Your task to perform on an android device: Open Youtube and go to the subscriptions tab Image 0: 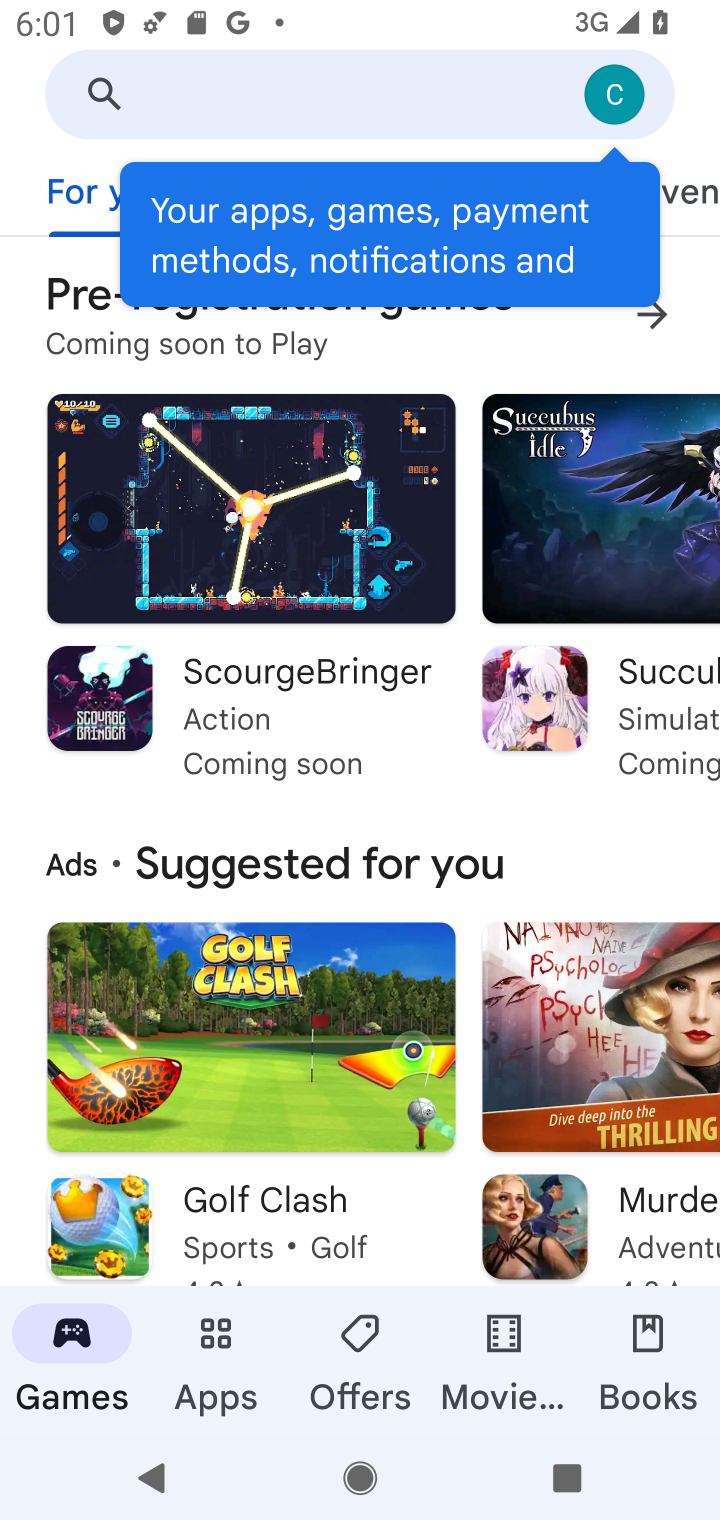
Step 0: press home button
Your task to perform on an android device: Open Youtube and go to the subscriptions tab Image 1: 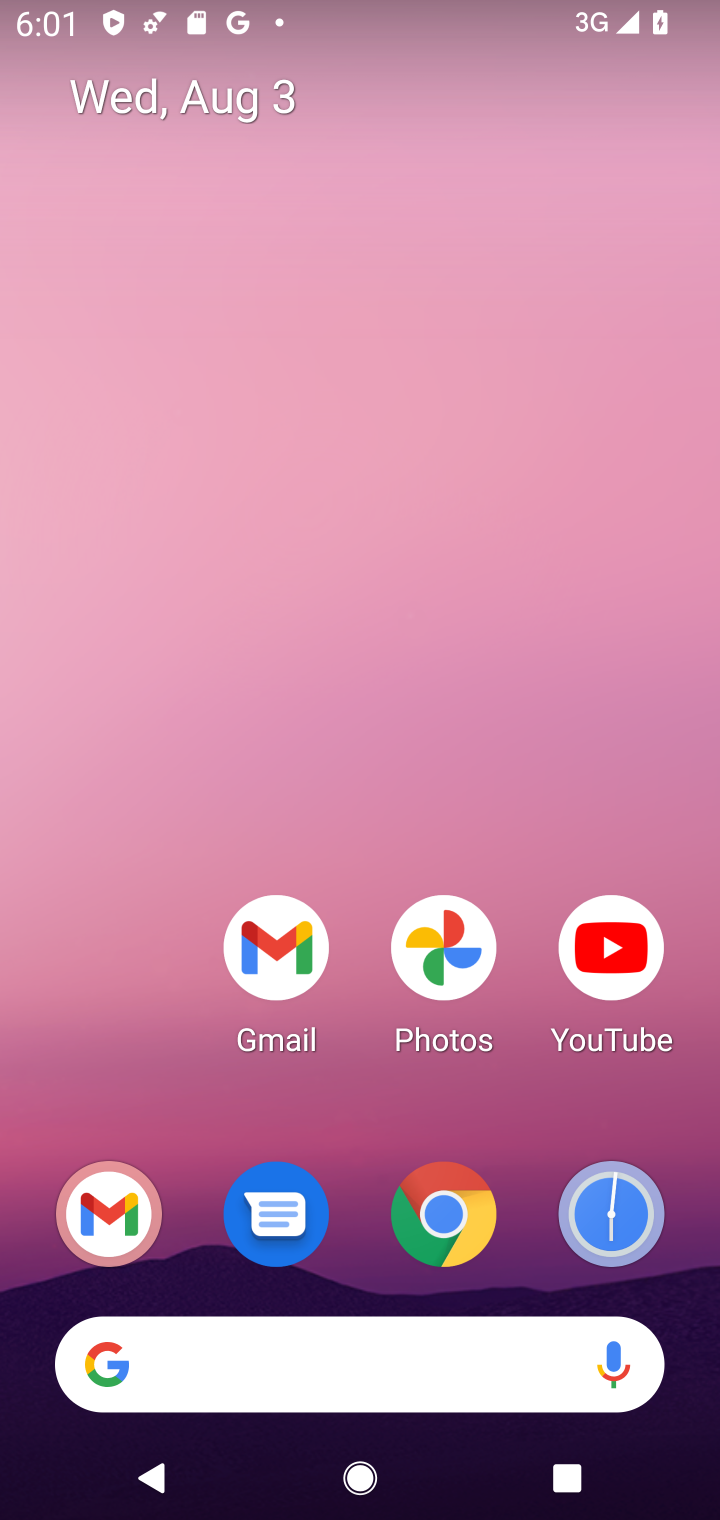
Step 1: click (595, 970)
Your task to perform on an android device: Open Youtube and go to the subscriptions tab Image 2: 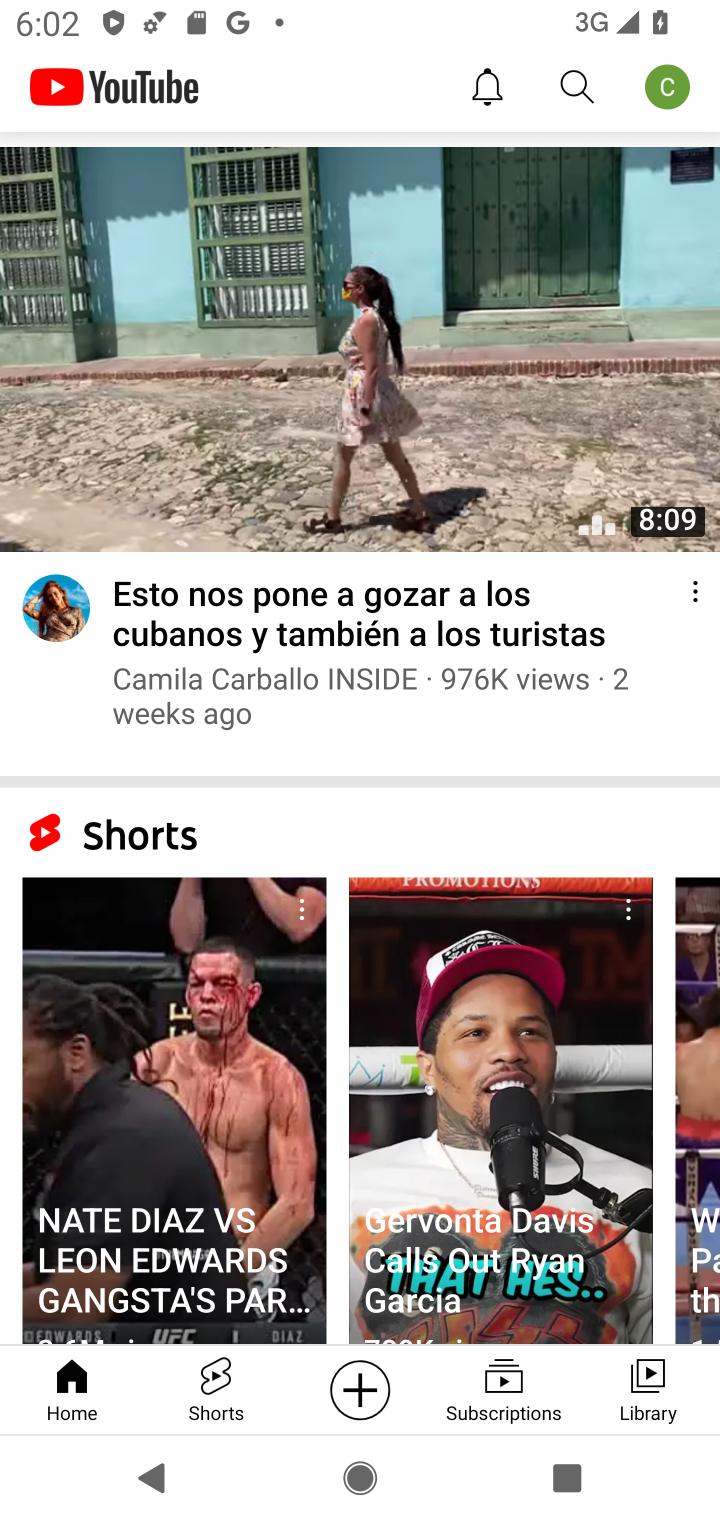
Step 2: click (498, 1390)
Your task to perform on an android device: Open Youtube and go to the subscriptions tab Image 3: 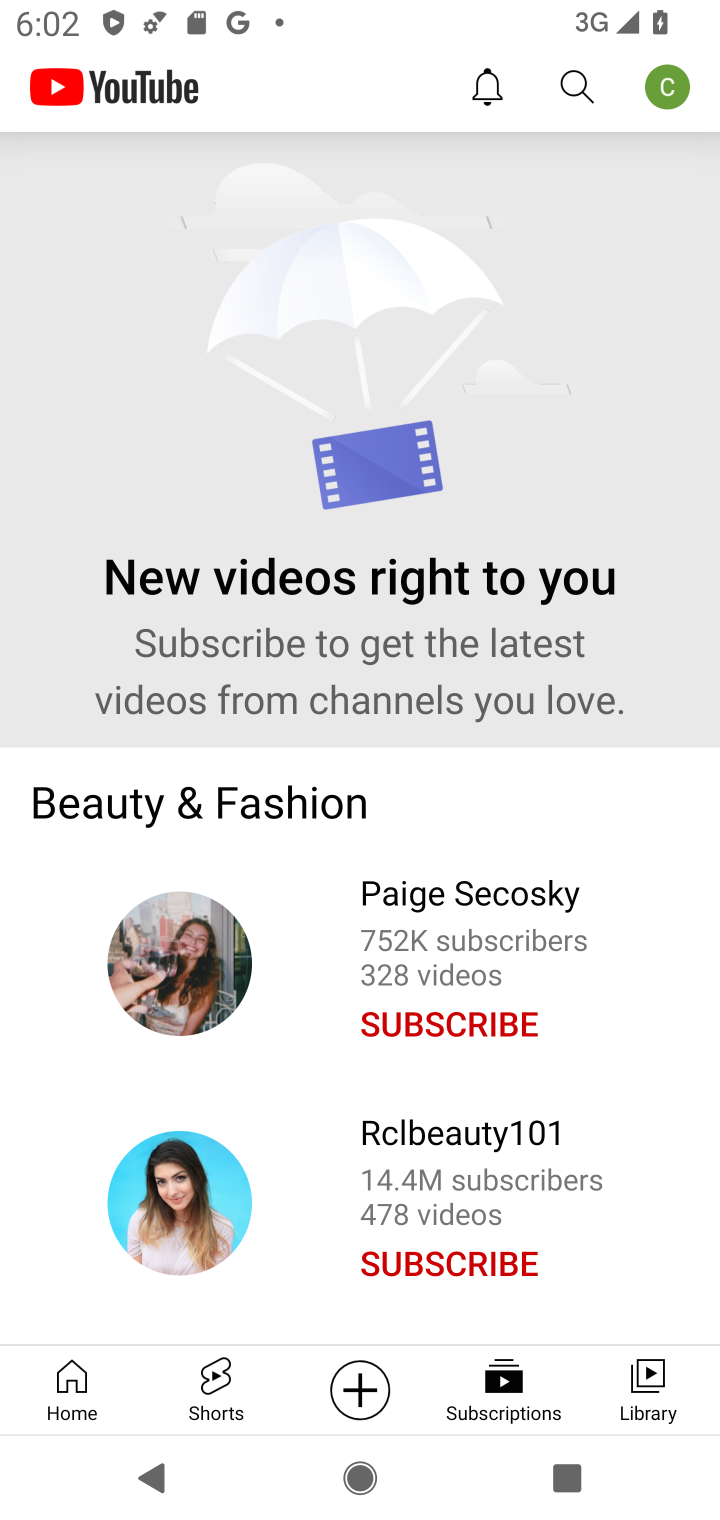
Step 3: task complete